Your task to perform on an android device: Go to ESPN.com Image 0: 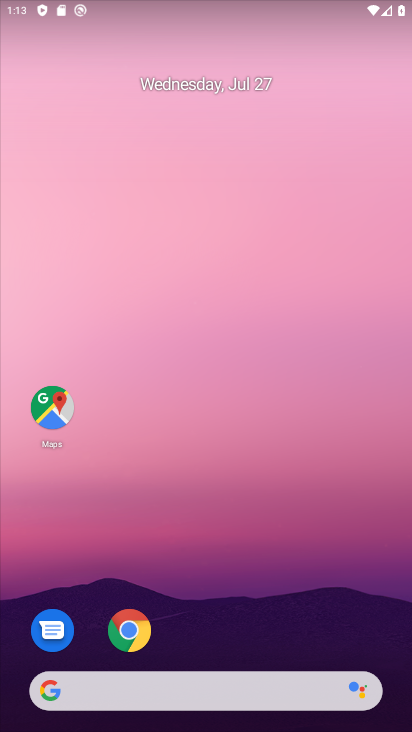
Step 0: click (112, 625)
Your task to perform on an android device: Go to ESPN.com Image 1: 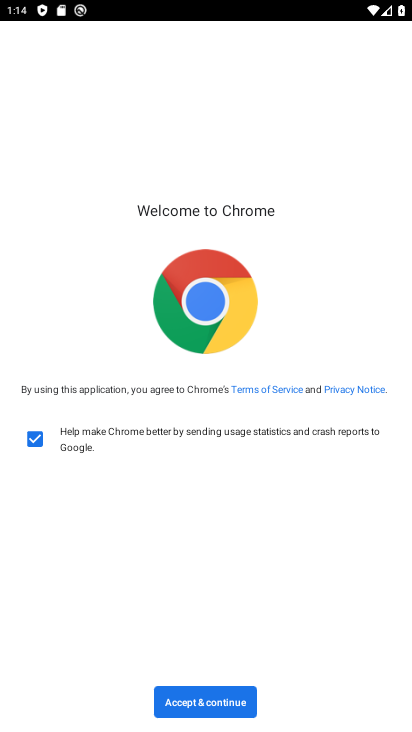
Step 1: click (214, 710)
Your task to perform on an android device: Go to ESPN.com Image 2: 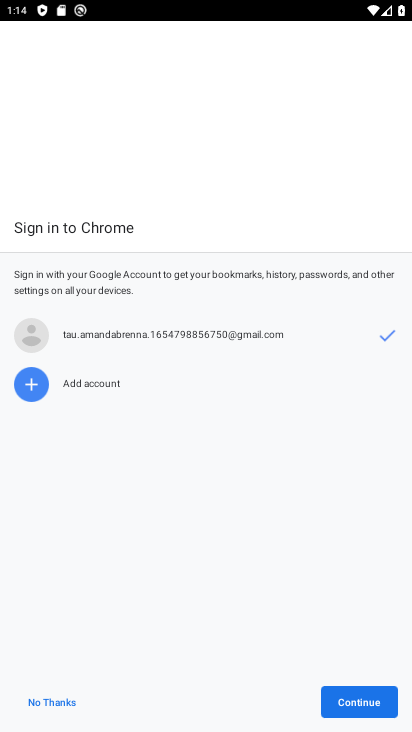
Step 2: click (341, 712)
Your task to perform on an android device: Go to ESPN.com Image 3: 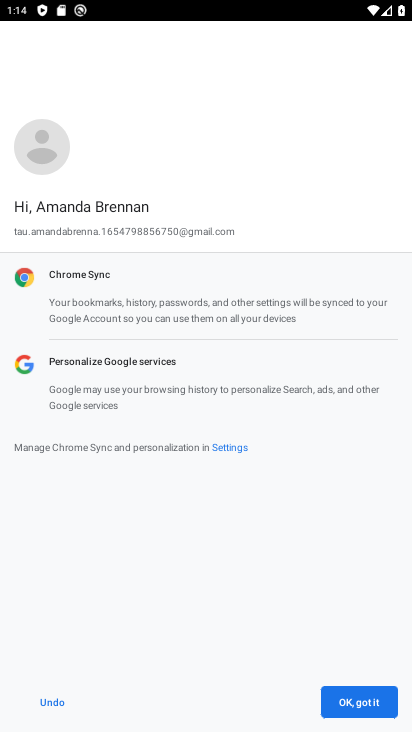
Step 3: click (334, 710)
Your task to perform on an android device: Go to ESPN.com Image 4: 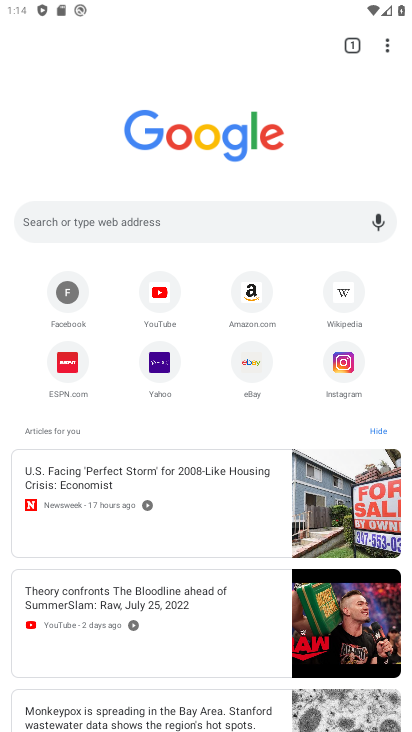
Step 4: click (73, 362)
Your task to perform on an android device: Go to ESPN.com Image 5: 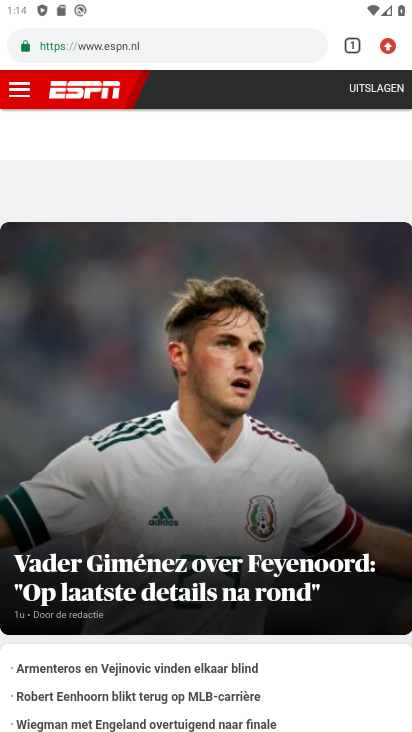
Step 5: task complete